Your task to perform on an android device: Check the news Image 0: 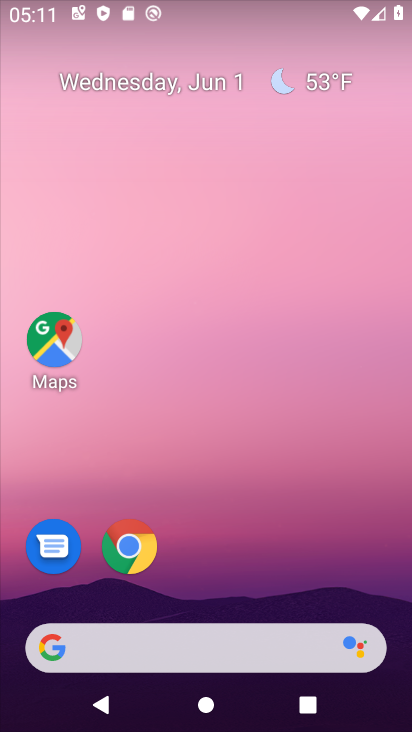
Step 0: click (218, 640)
Your task to perform on an android device: Check the news Image 1: 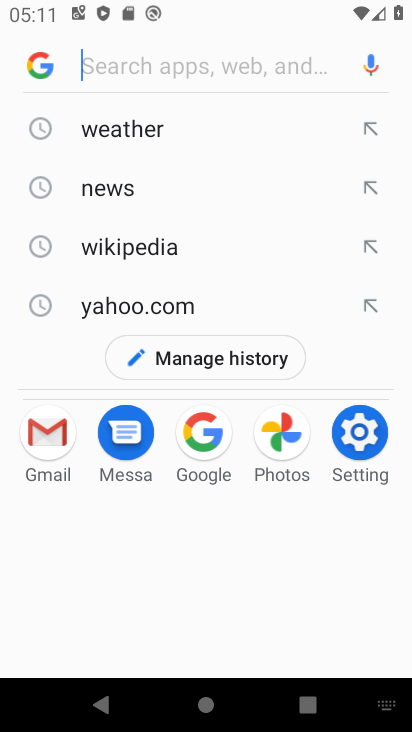
Step 1: click (115, 181)
Your task to perform on an android device: Check the news Image 2: 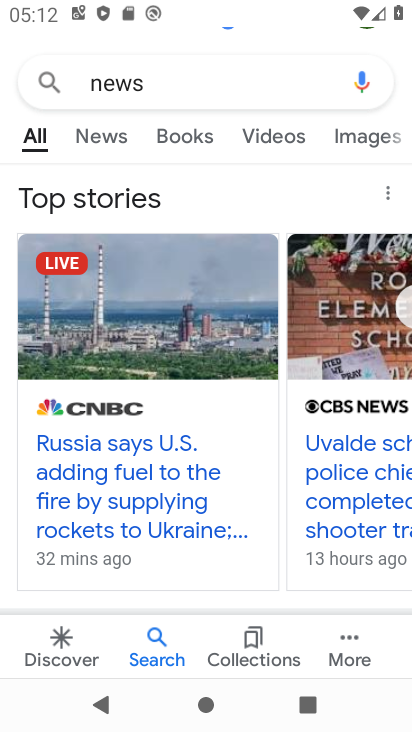
Step 2: task complete